Your task to perform on an android device: Do I have any events this weekend? Image 0: 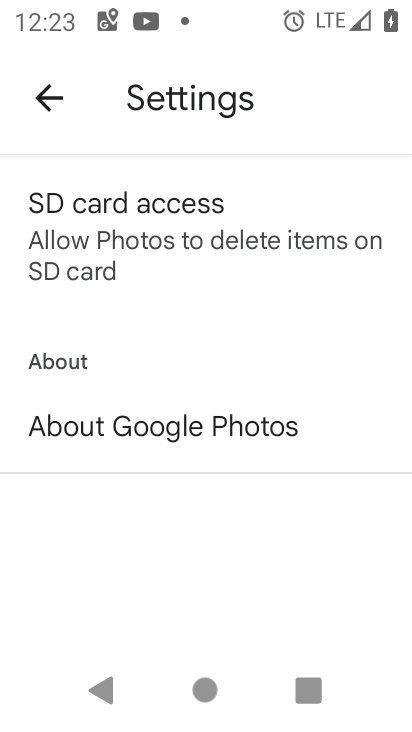
Step 0: press home button
Your task to perform on an android device: Do I have any events this weekend? Image 1: 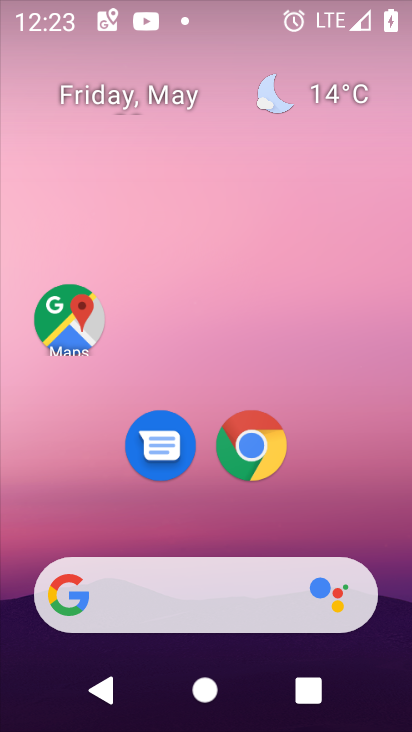
Step 1: drag from (227, 542) to (242, 168)
Your task to perform on an android device: Do I have any events this weekend? Image 2: 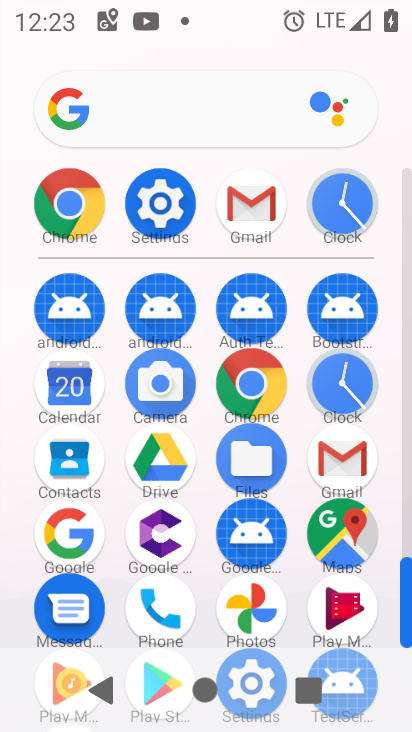
Step 2: click (70, 383)
Your task to perform on an android device: Do I have any events this weekend? Image 3: 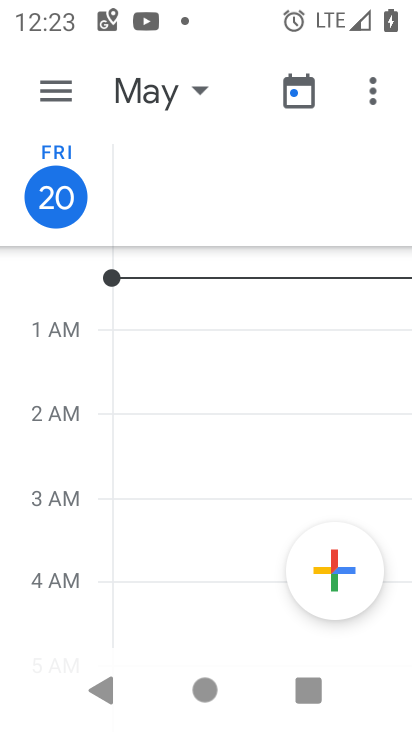
Step 3: click (201, 87)
Your task to perform on an android device: Do I have any events this weekend? Image 4: 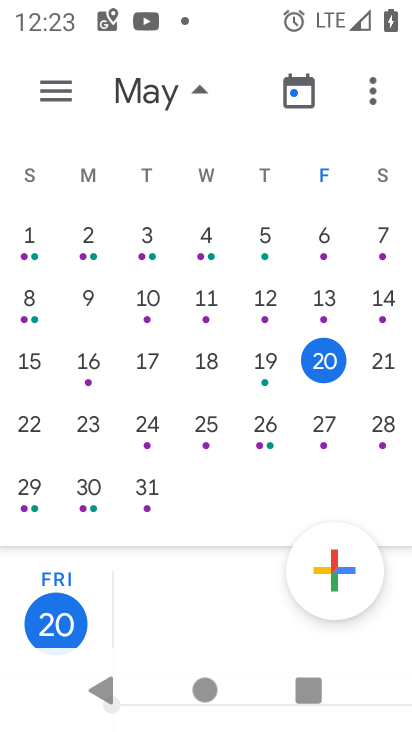
Step 4: click (62, 85)
Your task to perform on an android device: Do I have any events this weekend? Image 5: 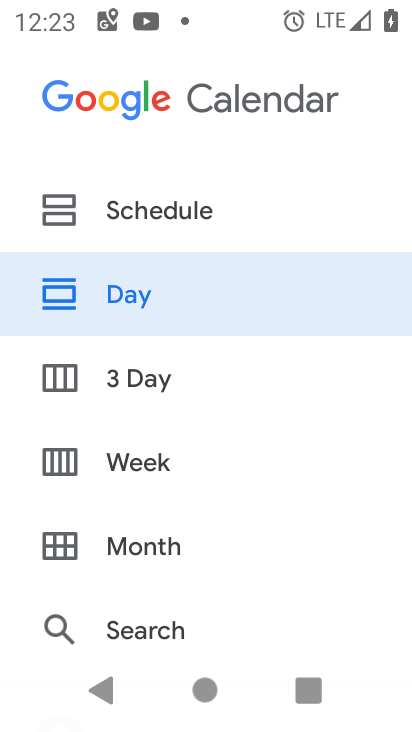
Step 5: click (169, 456)
Your task to perform on an android device: Do I have any events this weekend? Image 6: 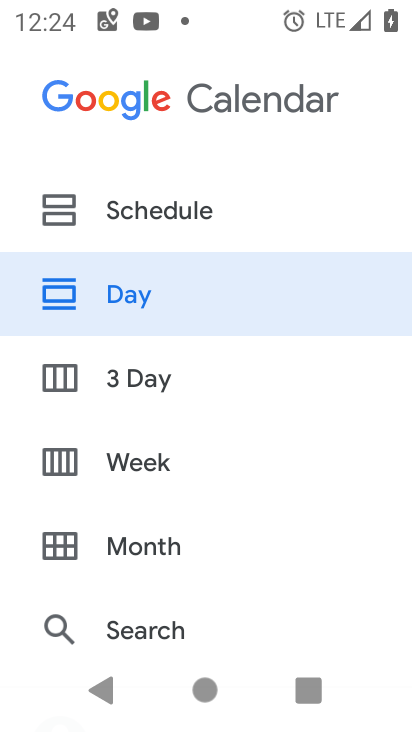
Step 6: click (160, 467)
Your task to perform on an android device: Do I have any events this weekend? Image 7: 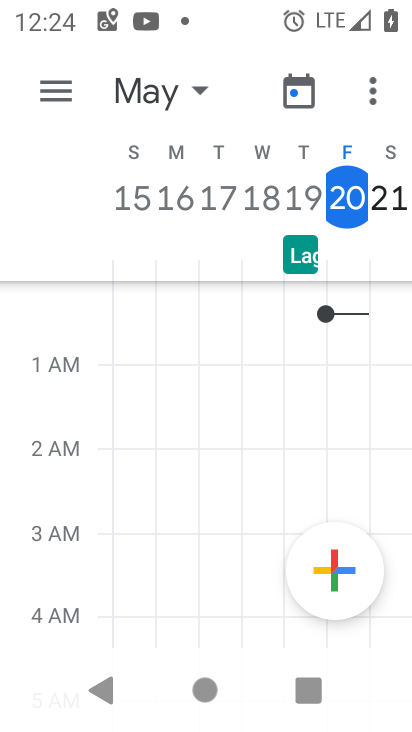
Step 7: task complete